Your task to perform on an android device: check out phone information Image 0: 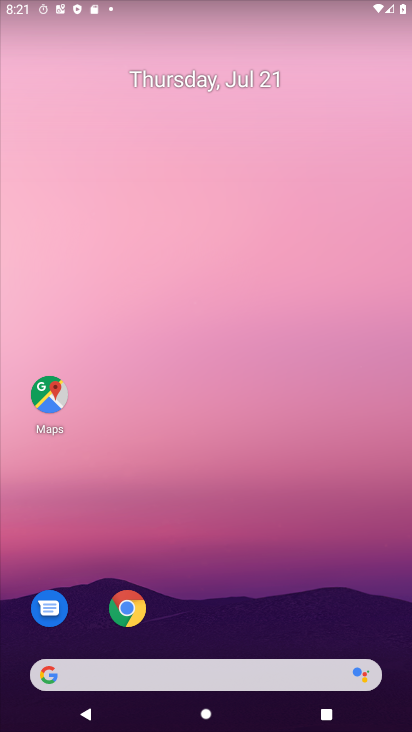
Step 0: drag from (356, 637) to (366, 208)
Your task to perform on an android device: check out phone information Image 1: 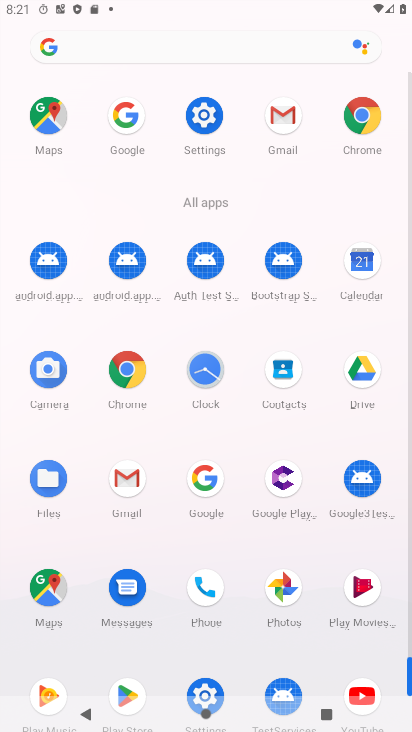
Step 1: click (200, 569)
Your task to perform on an android device: check out phone information Image 2: 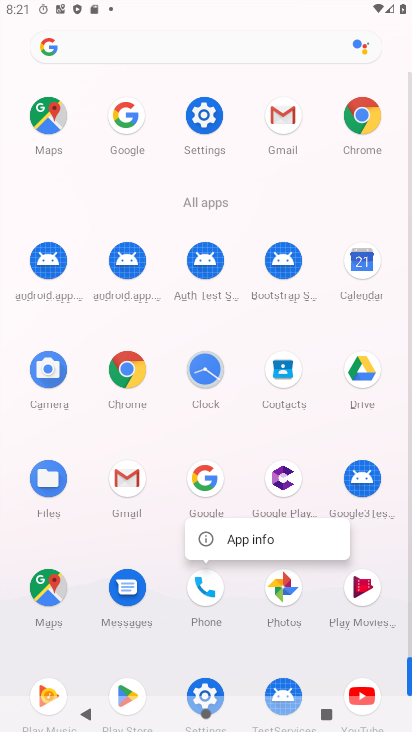
Step 2: click (216, 545)
Your task to perform on an android device: check out phone information Image 3: 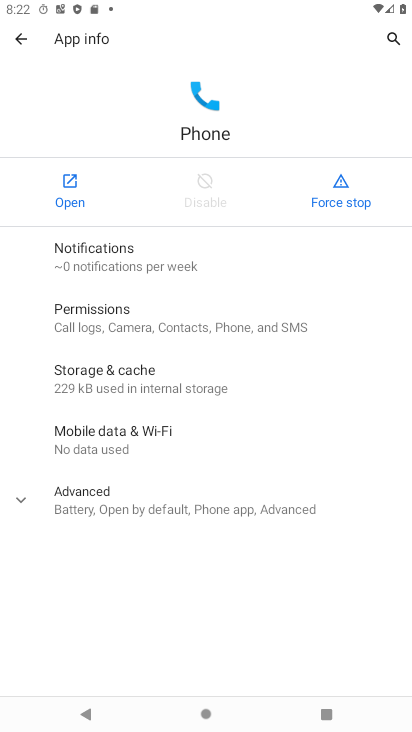
Step 3: task complete